Your task to perform on an android device: What's the weather going to be this weekend? Image 0: 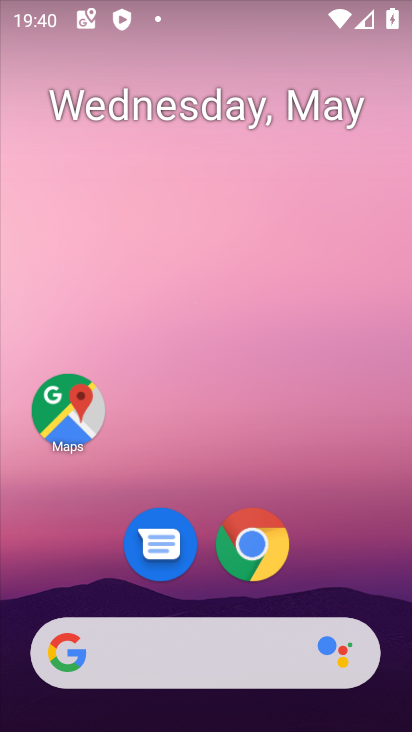
Step 0: click (199, 659)
Your task to perform on an android device: What's the weather going to be this weekend? Image 1: 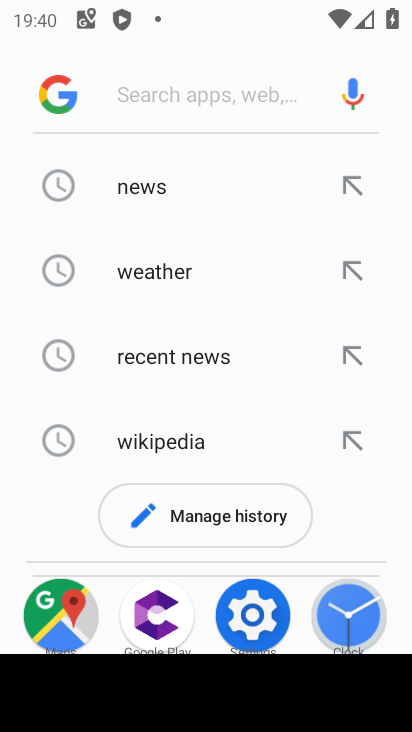
Step 1: click (271, 266)
Your task to perform on an android device: What's the weather going to be this weekend? Image 2: 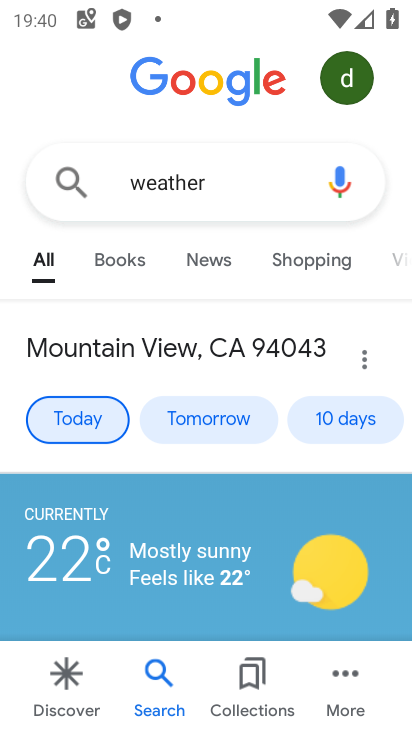
Step 2: click (357, 418)
Your task to perform on an android device: What's the weather going to be this weekend? Image 3: 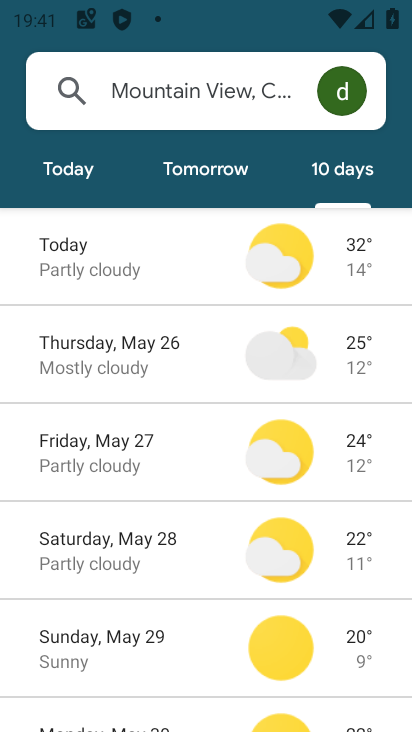
Step 3: task complete